Your task to perform on an android device: What is the recent news? Image 0: 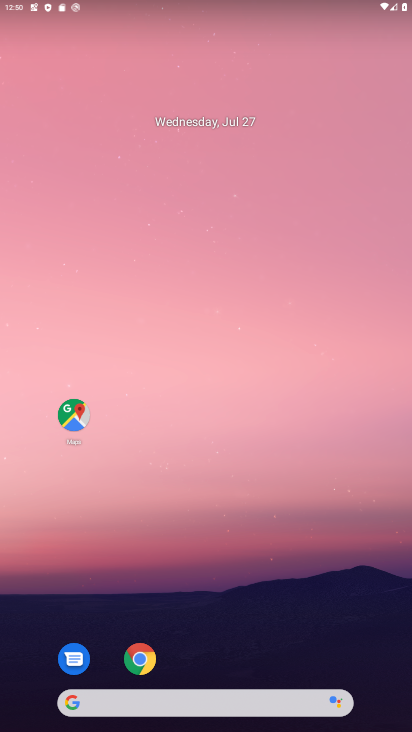
Step 0: drag from (261, 653) to (272, 310)
Your task to perform on an android device: What is the recent news? Image 1: 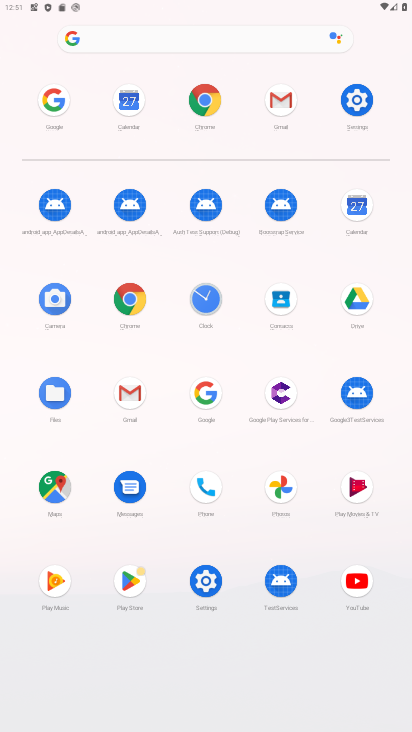
Step 1: click (194, 7)
Your task to perform on an android device: What is the recent news? Image 2: 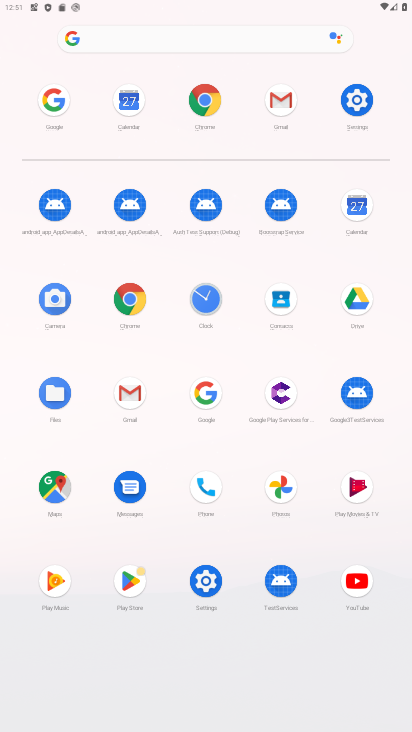
Step 2: click (182, 41)
Your task to perform on an android device: What is the recent news? Image 3: 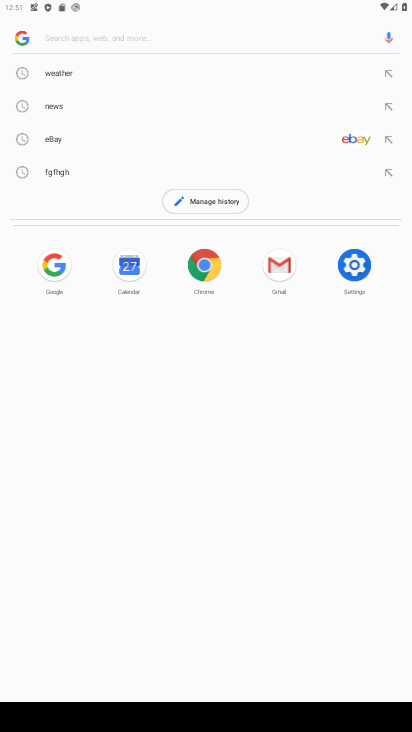
Step 3: type "recent news"
Your task to perform on an android device: What is the recent news? Image 4: 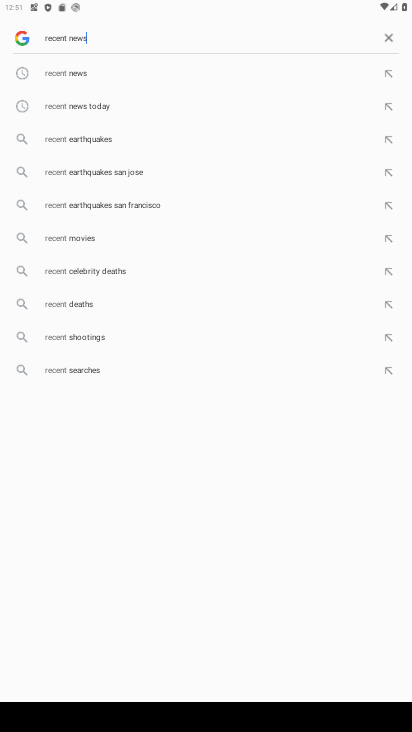
Step 4: type ""
Your task to perform on an android device: What is the recent news? Image 5: 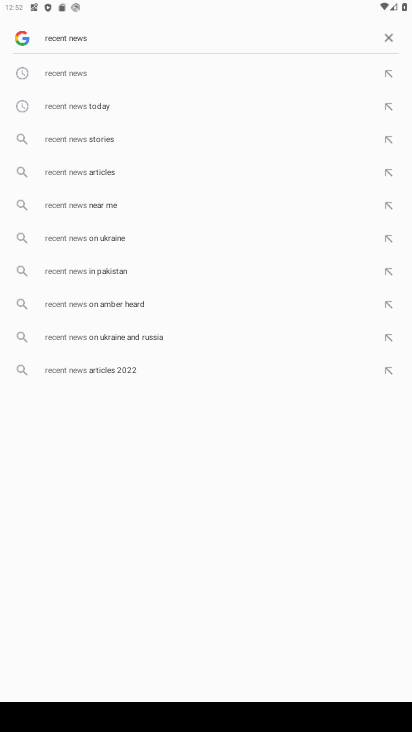
Step 5: click (167, 83)
Your task to perform on an android device: What is the recent news? Image 6: 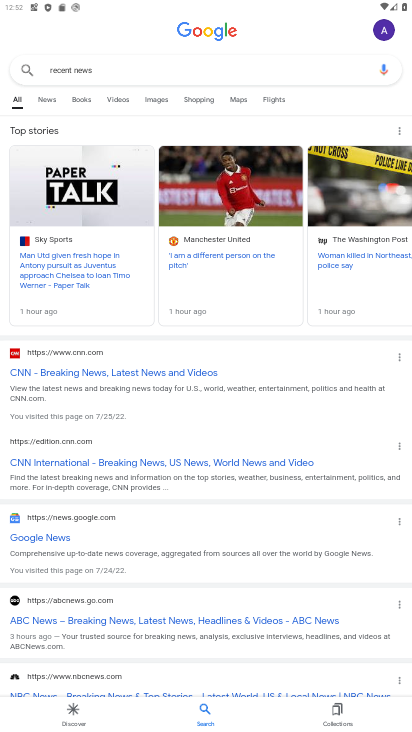
Step 6: task complete